Your task to perform on an android device: Go to display settings Image 0: 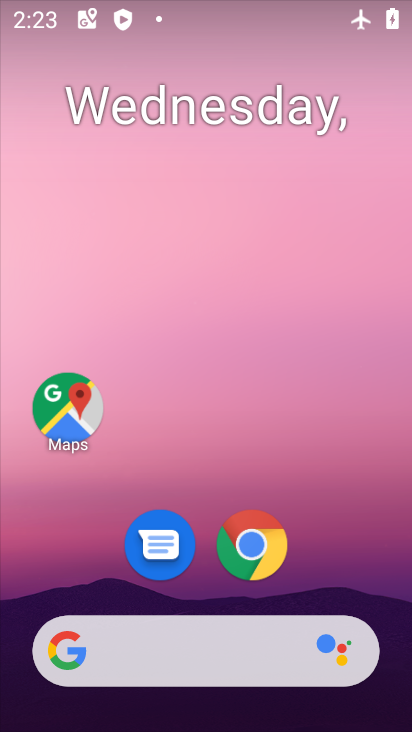
Step 0: drag from (345, 525) to (319, 150)
Your task to perform on an android device: Go to display settings Image 1: 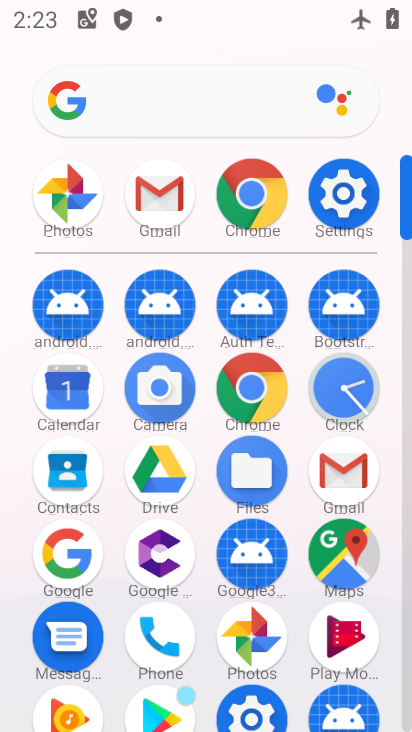
Step 1: click (348, 180)
Your task to perform on an android device: Go to display settings Image 2: 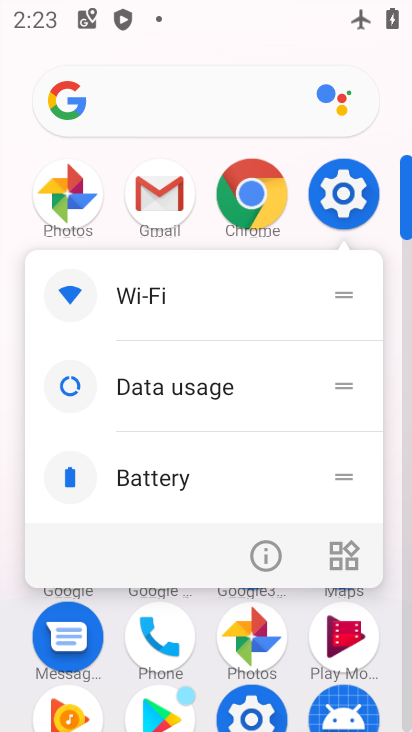
Step 2: click (340, 189)
Your task to perform on an android device: Go to display settings Image 3: 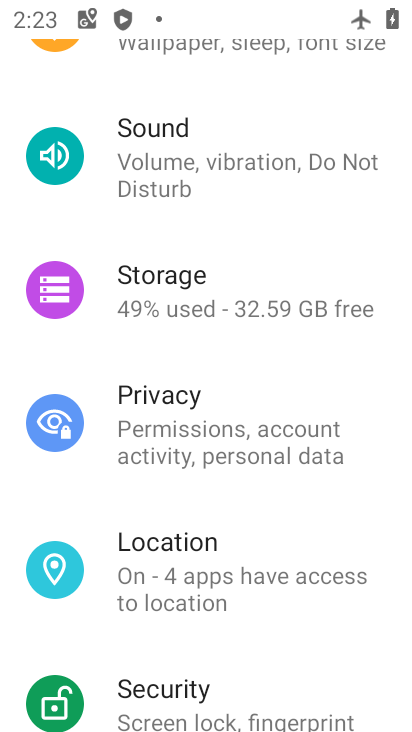
Step 3: drag from (265, 195) to (235, 540)
Your task to perform on an android device: Go to display settings Image 4: 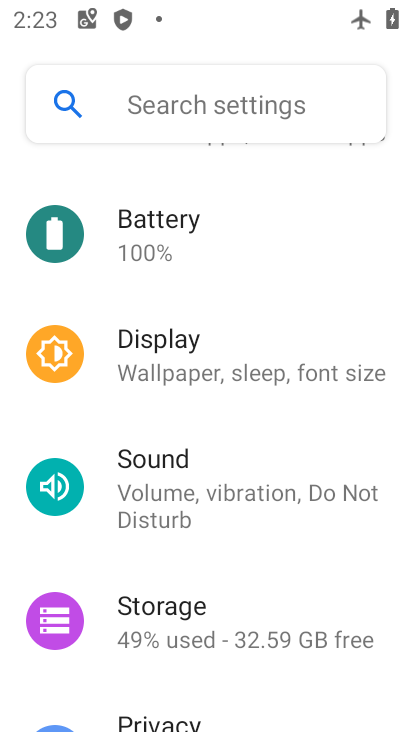
Step 4: click (221, 134)
Your task to perform on an android device: Go to display settings Image 5: 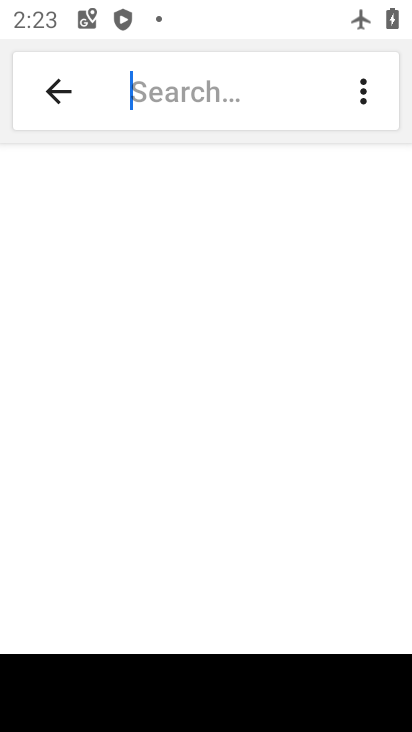
Step 5: click (36, 86)
Your task to perform on an android device: Go to display settings Image 6: 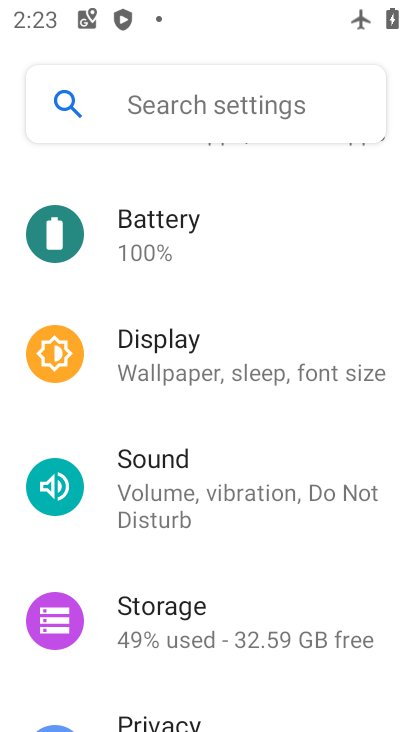
Step 6: click (221, 374)
Your task to perform on an android device: Go to display settings Image 7: 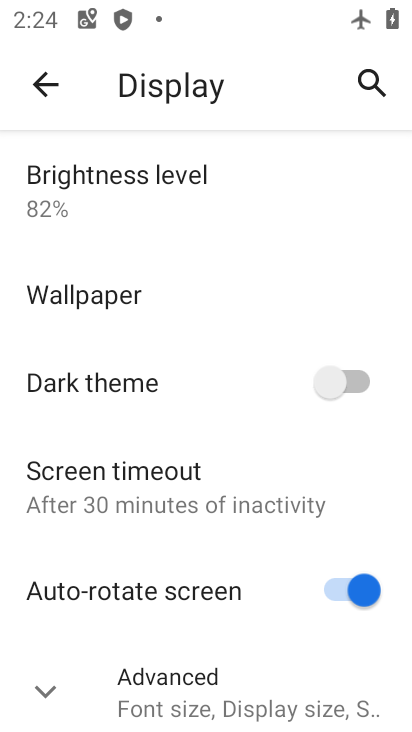
Step 7: task complete